Your task to perform on an android device: turn on javascript in the chrome app Image 0: 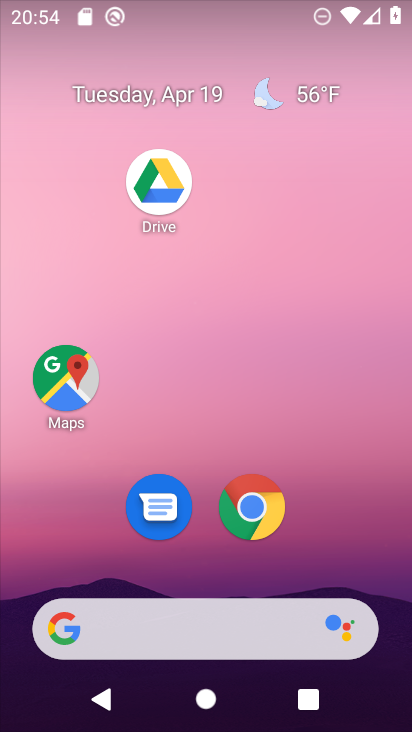
Step 0: click (269, 499)
Your task to perform on an android device: turn on javascript in the chrome app Image 1: 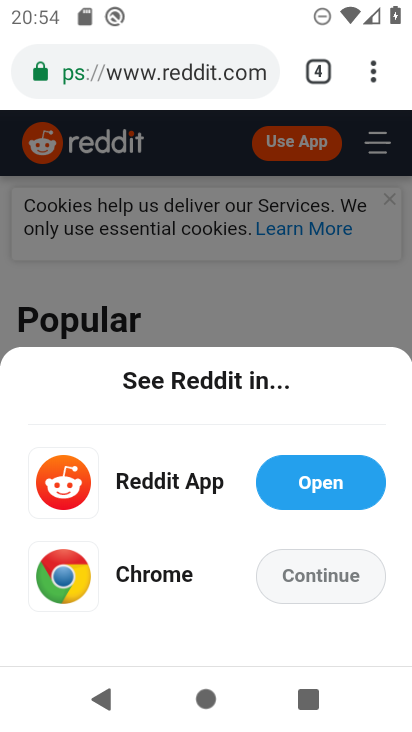
Step 1: click (343, 299)
Your task to perform on an android device: turn on javascript in the chrome app Image 2: 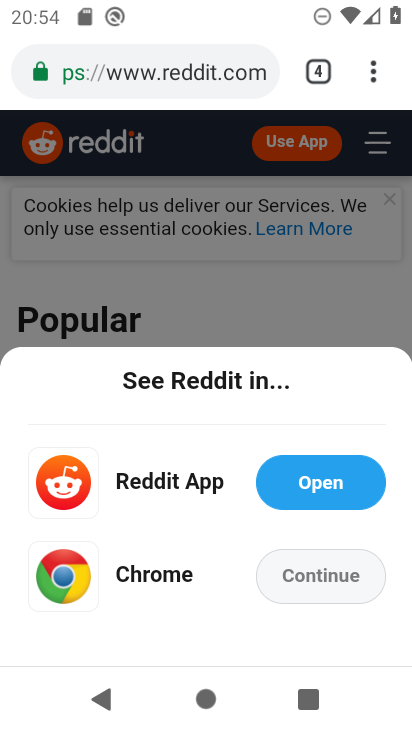
Step 2: drag from (371, 69) to (245, 497)
Your task to perform on an android device: turn on javascript in the chrome app Image 3: 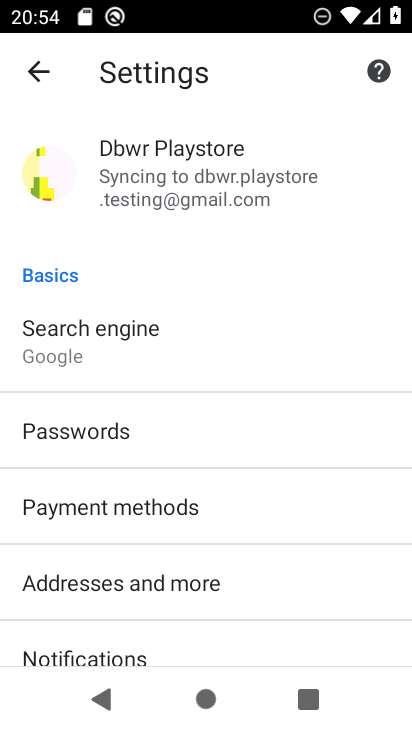
Step 3: drag from (253, 571) to (245, 162)
Your task to perform on an android device: turn on javascript in the chrome app Image 4: 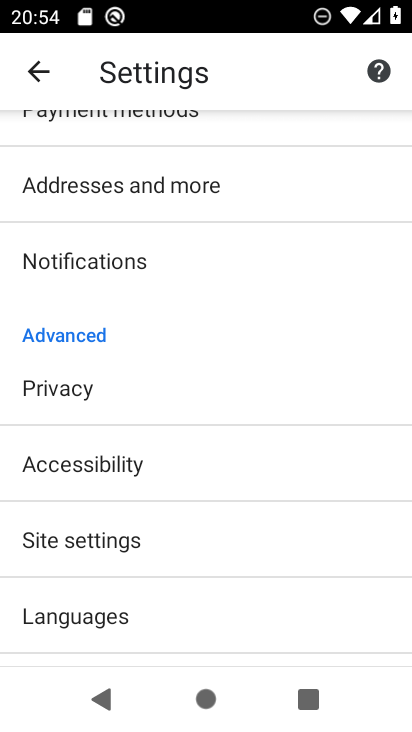
Step 4: click (179, 536)
Your task to perform on an android device: turn on javascript in the chrome app Image 5: 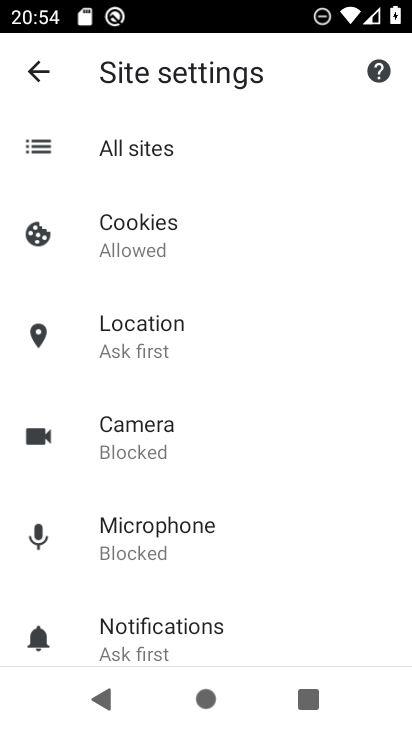
Step 5: drag from (252, 561) to (213, 176)
Your task to perform on an android device: turn on javascript in the chrome app Image 6: 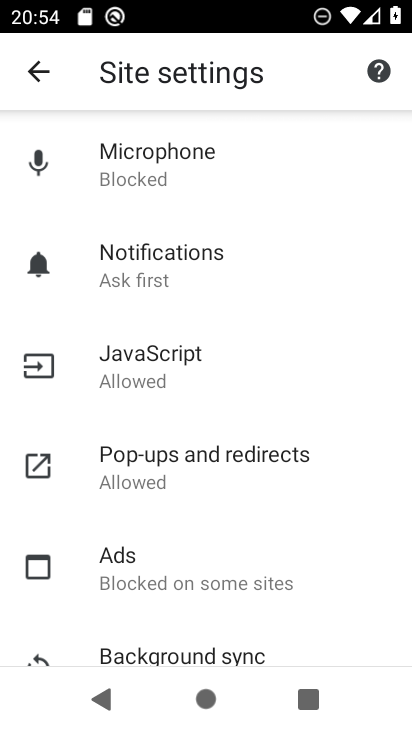
Step 6: click (218, 359)
Your task to perform on an android device: turn on javascript in the chrome app Image 7: 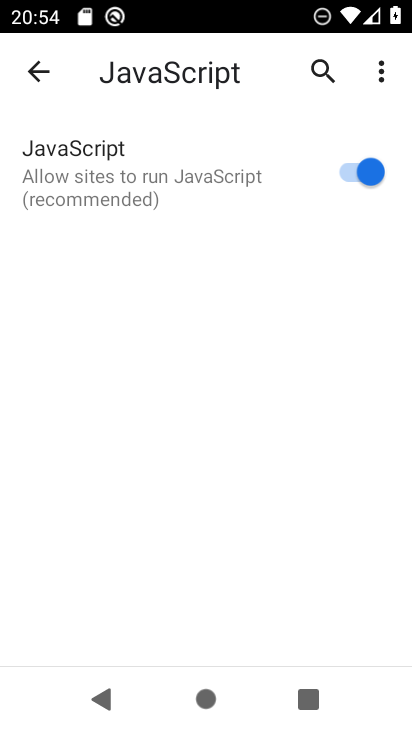
Step 7: task complete